Your task to perform on an android device: Go to Google maps Image 0: 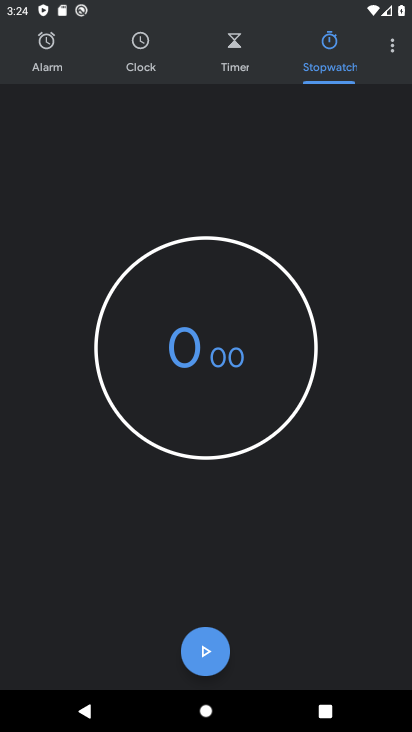
Step 0: press home button
Your task to perform on an android device: Go to Google maps Image 1: 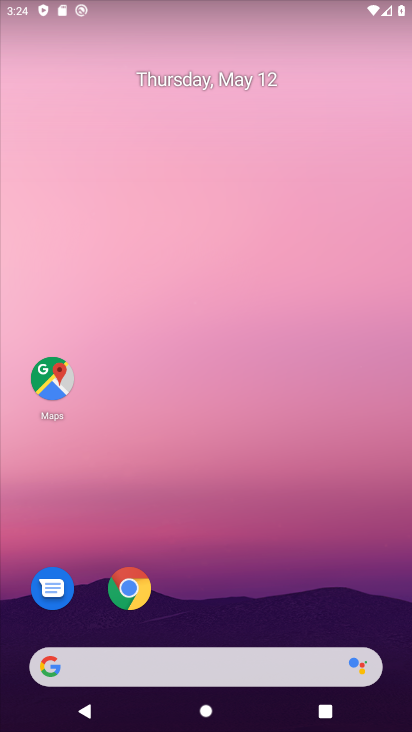
Step 1: click (42, 372)
Your task to perform on an android device: Go to Google maps Image 2: 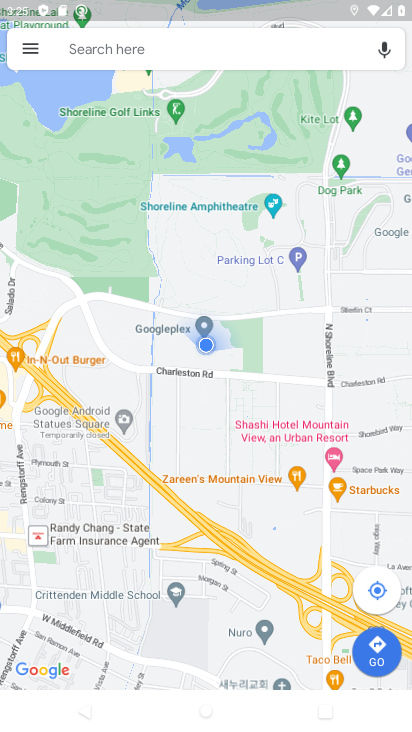
Step 2: task complete